Your task to perform on an android device: turn on the 12-hour format for clock Image 0: 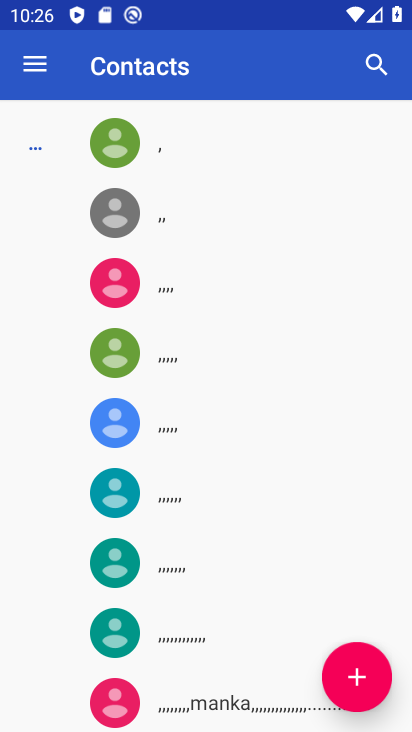
Step 0: press home button
Your task to perform on an android device: turn on the 12-hour format for clock Image 1: 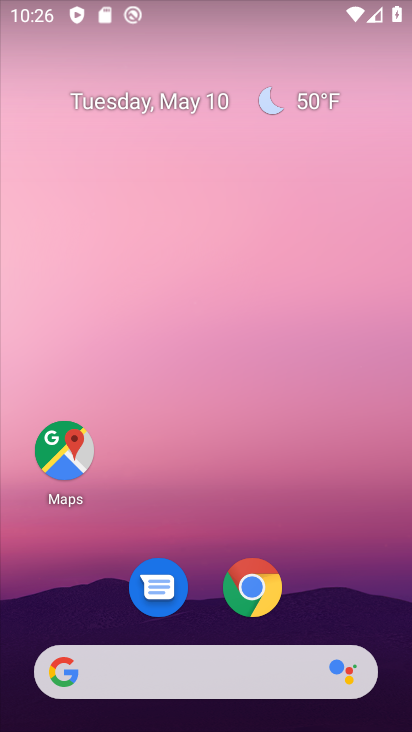
Step 1: drag from (195, 646) to (155, 38)
Your task to perform on an android device: turn on the 12-hour format for clock Image 2: 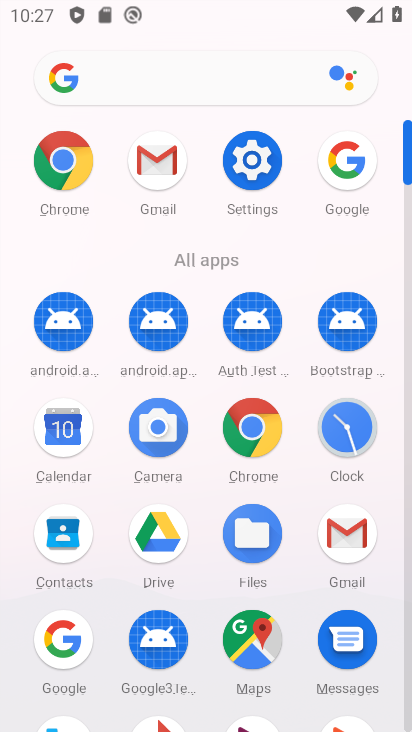
Step 2: click (344, 434)
Your task to perform on an android device: turn on the 12-hour format for clock Image 3: 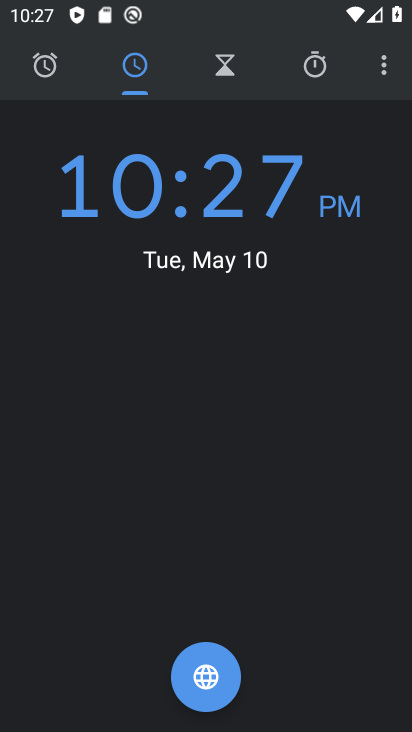
Step 3: click (376, 71)
Your task to perform on an android device: turn on the 12-hour format for clock Image 4: 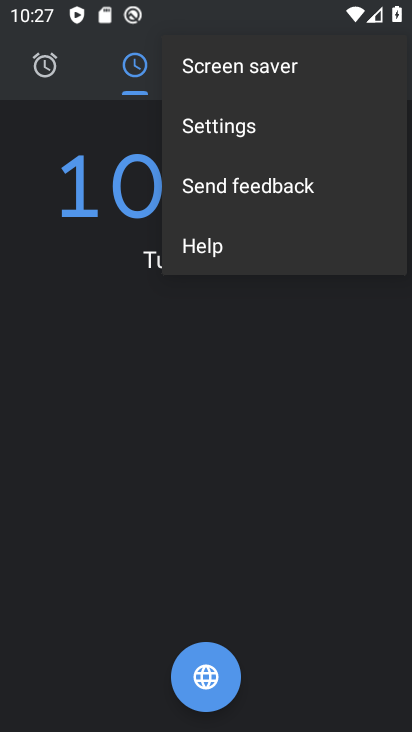
Step 4: click (212, 134)
Your task to perform on an android device: turn on the 12-hour format for clock Image 5: 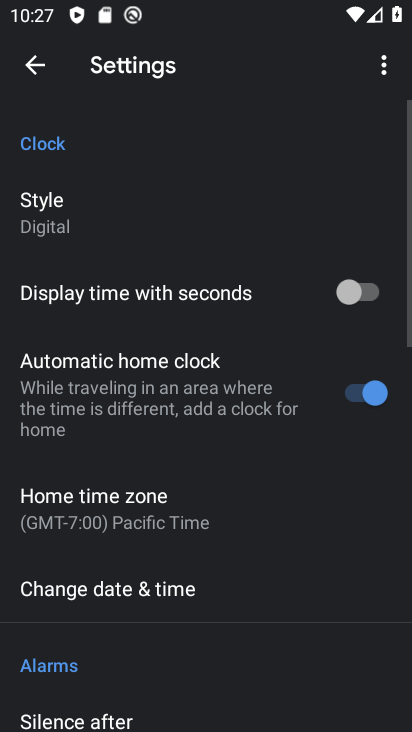
Step 5: click (135, 596)
Your task to perform on an android device: turn on the 12-hour format for clock Image 6: 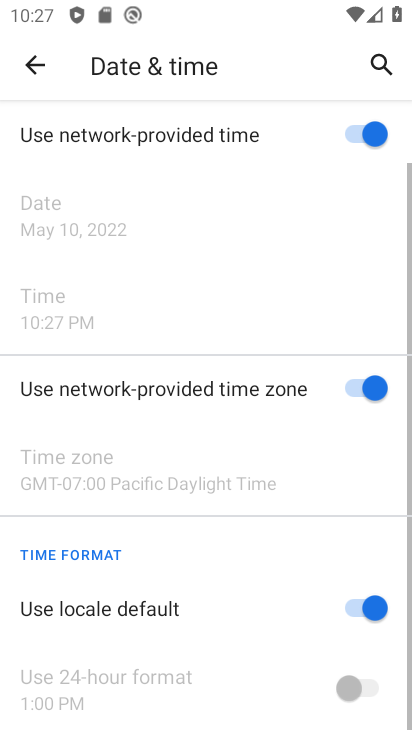
Step 6: task complete